Your task to perform on an android device: Open Wikipedia Image 0: 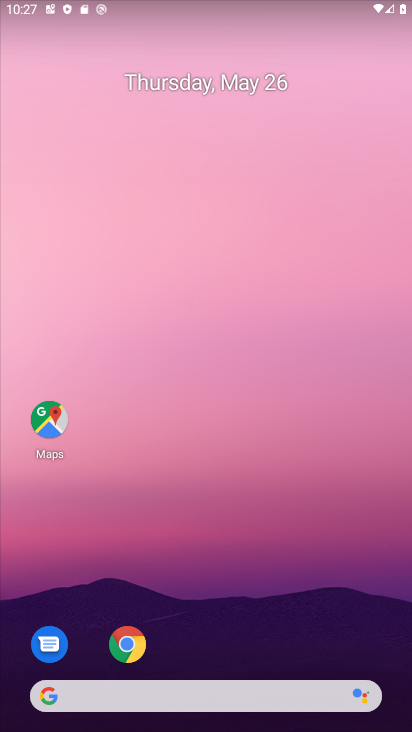
Step 0: drag from (361, 619) to (264, 4)
Your task to perform on an android device: Open Wikipedia Image 1: 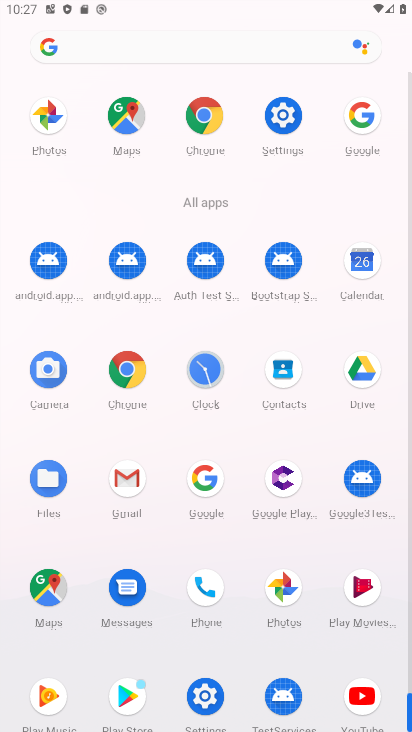
Step 1: click (203, 486)
Your task to perform on an android device: Open Wikipedia Image 2: 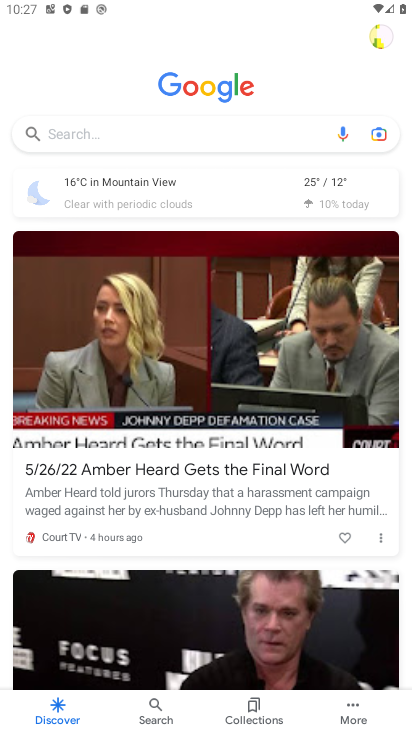
Step 2: click (174, 124)
Your task to perform on an android device: Open Wikipedia Image 3: 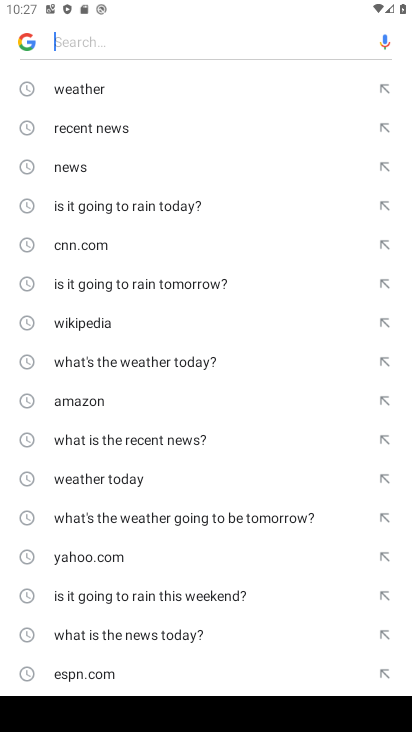
Step 3: click (110, 317)
Your task to perform on an android device: Open Wikipedia Image 4: 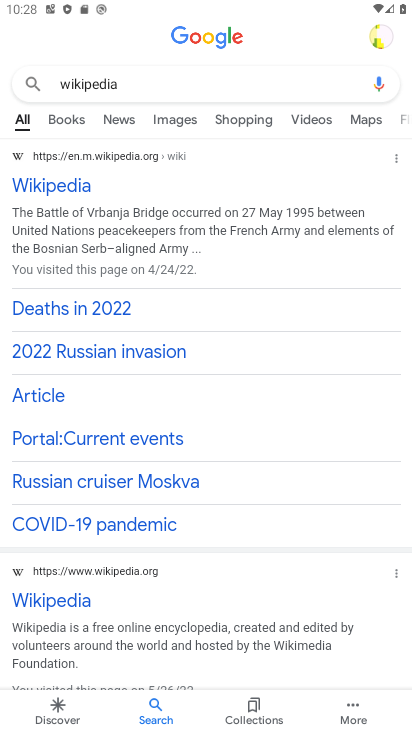
Step 4: task complete